Your task to perform on an android device: Open my contact list Image 0: 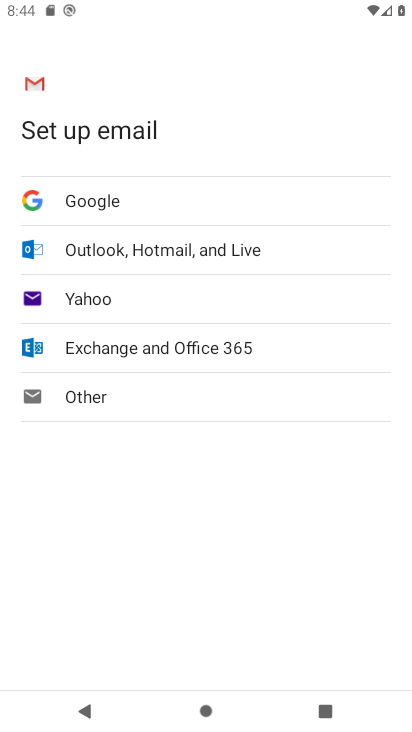
Step 0: press home button
Your task to perform on an android device: Open my contact list Image 1: 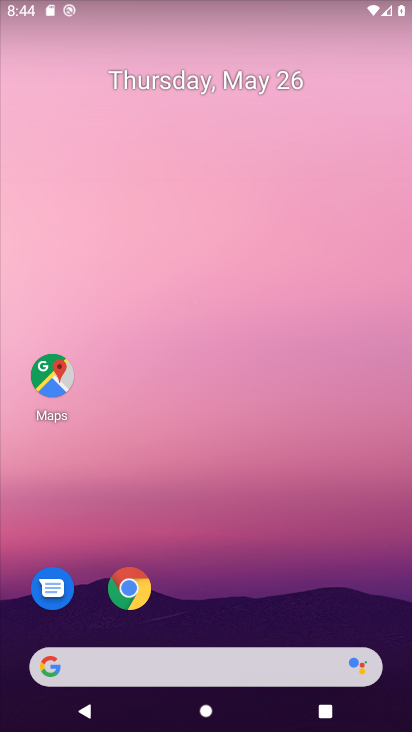
Step 1: drag from (245, 573) to (248, 4)
Your task to perform on an android device: Open my contact list Image 2: 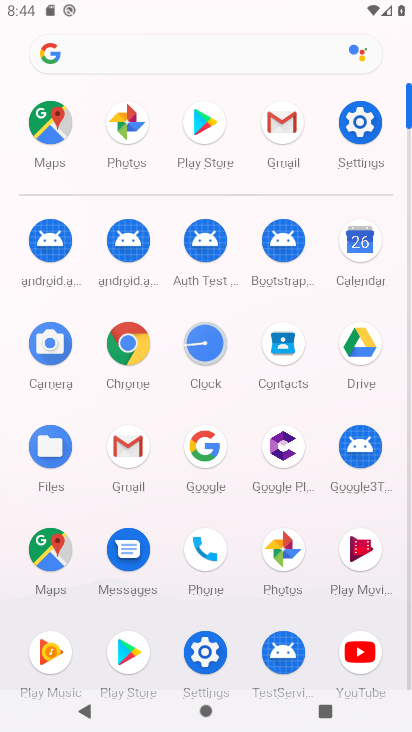
Step 2: click (289, 344)
Your task to perform on an android device: Open my contact list Image 3: 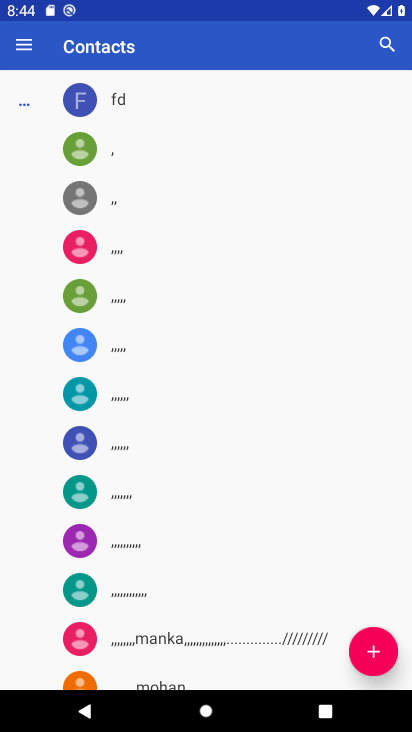
Step 3: task complete